Your task to perform on an android device: change the clock display to analog Image 0: 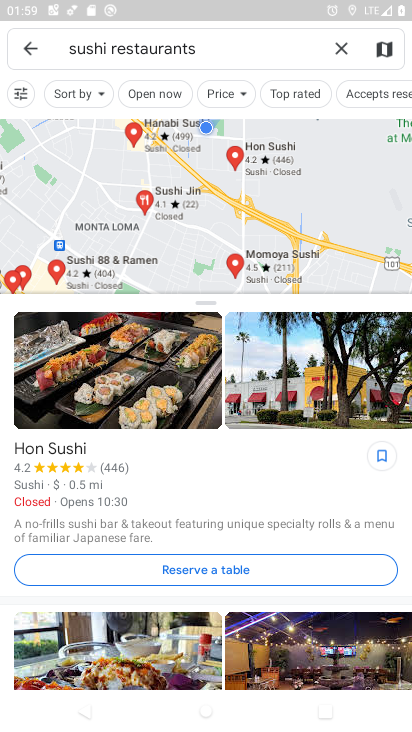
Step 0: press home button
Your task to perform on an android device: change the clock display to analog Image 1: 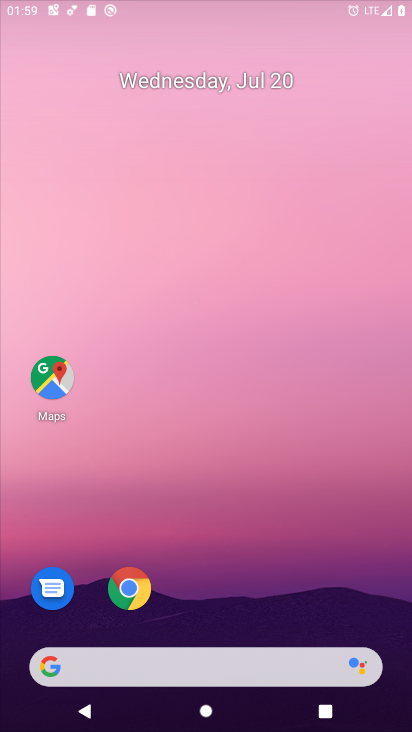
Step 1: drag from (242, 582) to (256, 427)
Your task to perform on an android device: change the clock display to analog Image 2: 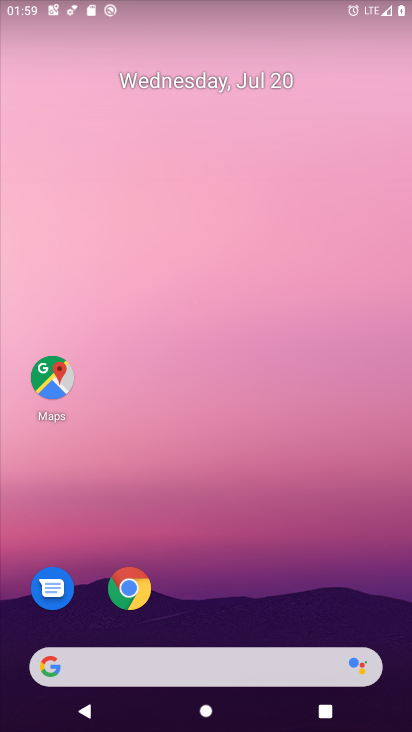
Step 2: drag from (226, 599) to (267, 226)
Your task to perform on an android device: change the clock display to analog Image 3: 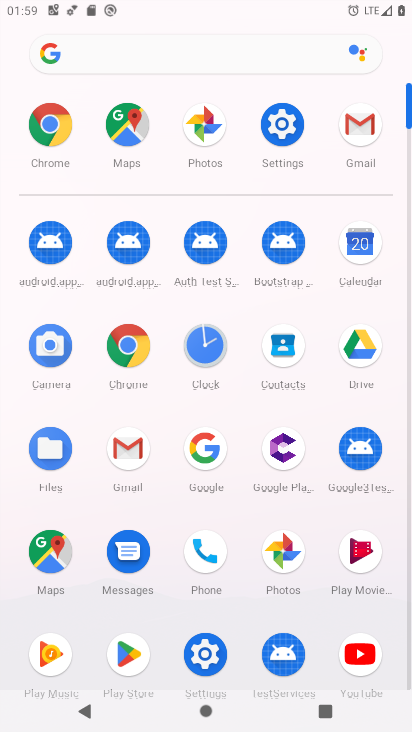
Step 3: click (215, 340)
Your task to perform on an android device: change the clock display to analog Image 4: 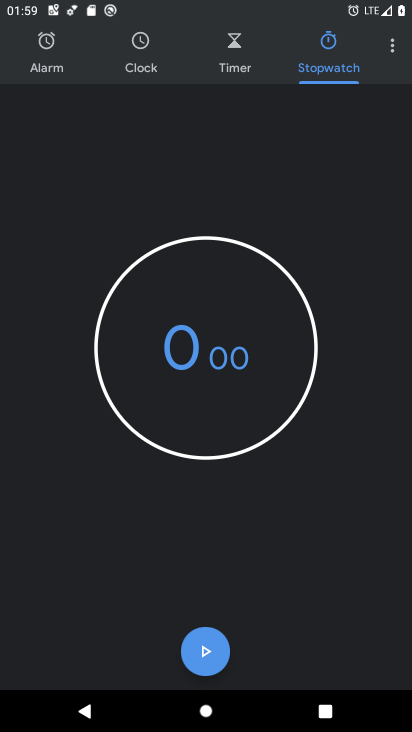
Step 4: click (385, 46)
Your task to perform on an android device: change the clock display to analog Image 5: 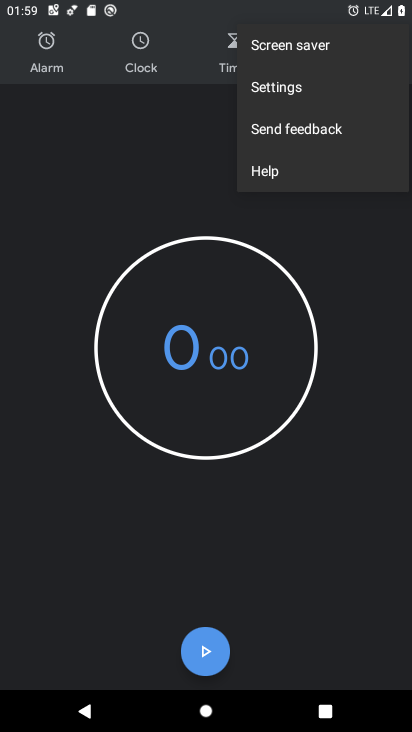
Step 5: click (304, 85)
Your task to perform on an android device: change the clock display to analog Image 6: 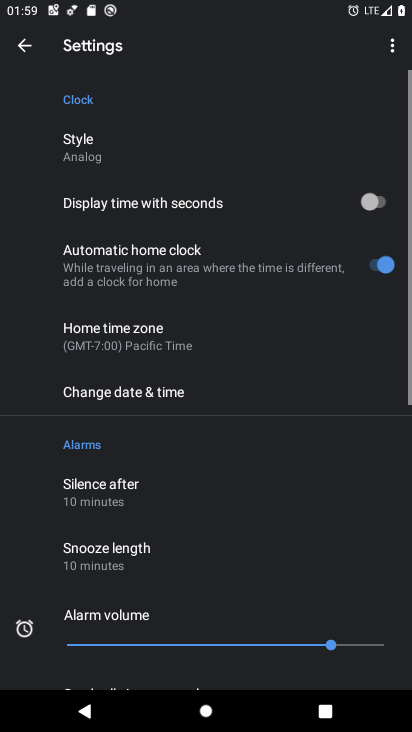
Step 6: click (129, 144)
Your task to perform on an android device: change the clock display to analog Image 7: 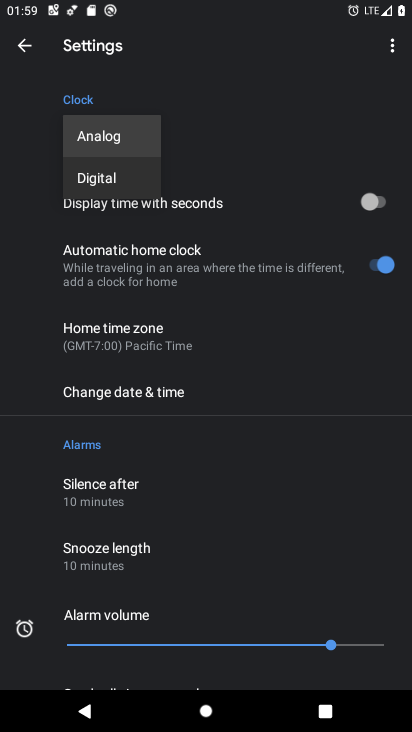
Step 7: click (127, 144)
Your task to perform on an android device: change the clock display to analog Image 8: 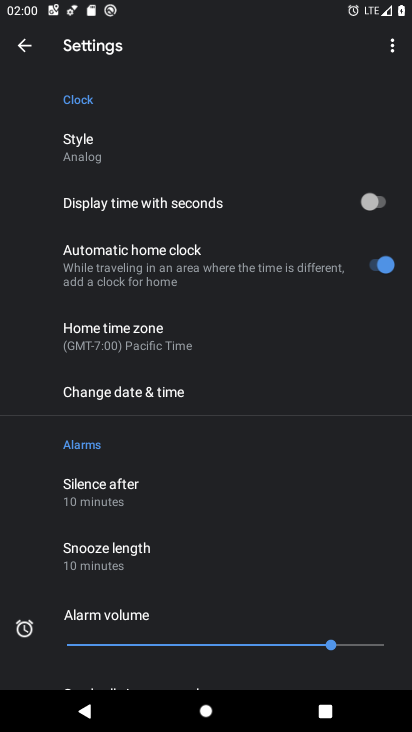
Step 8: task complete